Your task to perform on an android device: Go to Android settings Image 0: 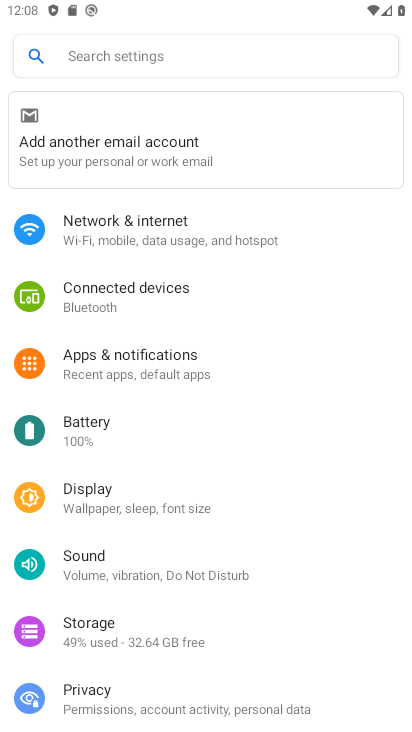
Step 0: press home button
Your task to perform on an android device: Go to Android settings Image 1: 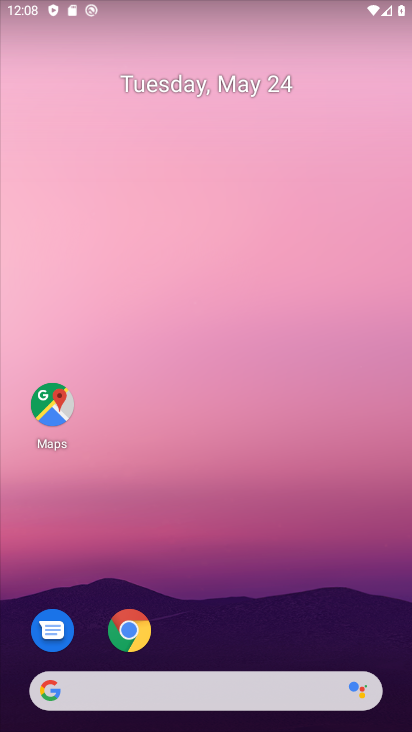
Step 1: drag from (346, 632) to (311, 228)
Your task to perform on an android device: Go to Android settings Image 2: 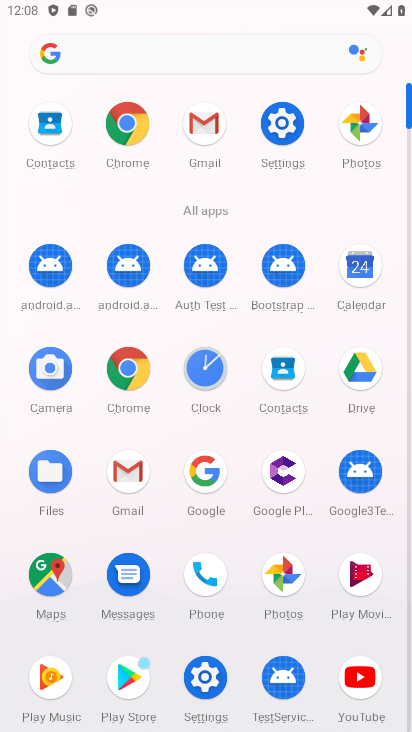
Step 2: click (203, 676)
Your task to perform on an android device: Go to Android settings Image 3: 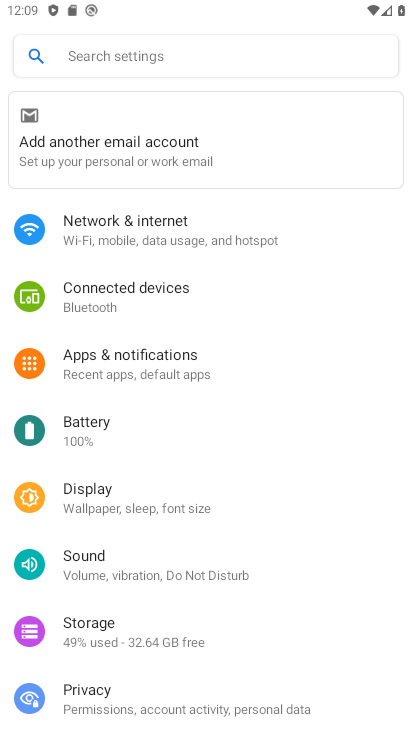
Step 3: task complete